Your task to perform on an android device: change alarm snooze length Image 0: 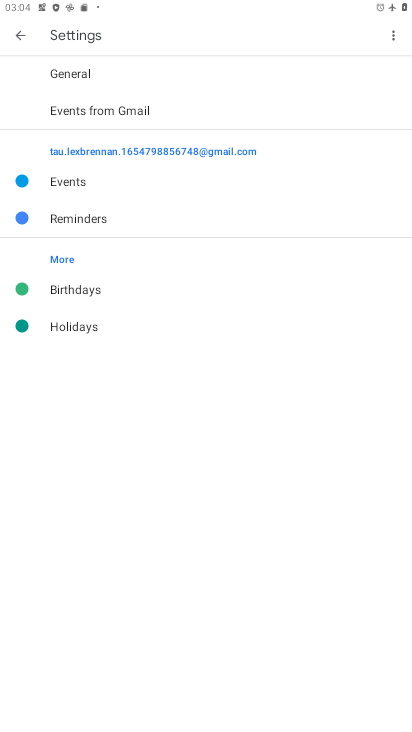
Step 0: press home button
Your task to perform on an android device: change alarm snooze length Image 1: 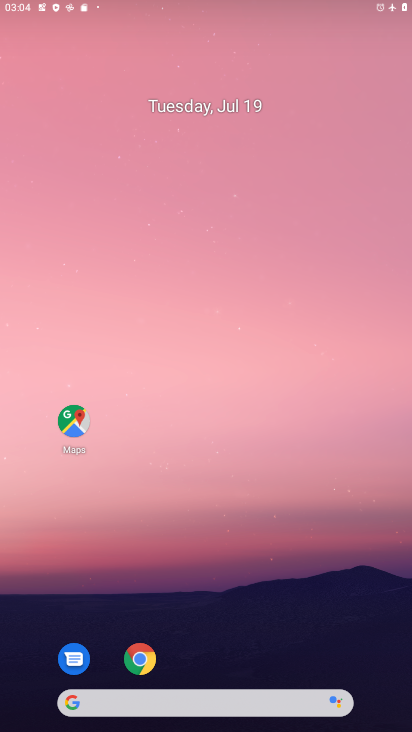
Step 1: drag from (235, 659) to (240, 232)
Your task to perform on an android device: change alarm snooze length Image 2: 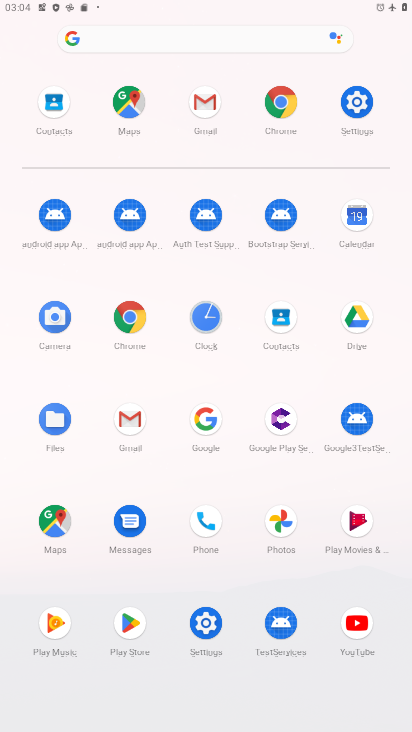
Step 2: click (191, 329)
Your task to perform on an android device: change alarm snooze length Image 3: 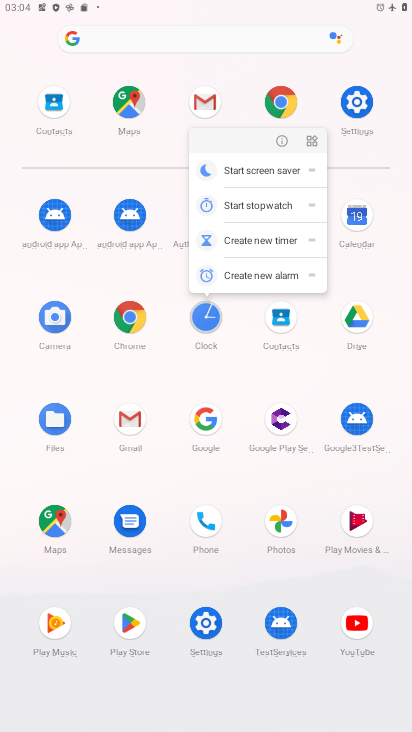
Step 3: click (190, 329)
Your task to perform on an android device: change alarm snooze length Image 4: 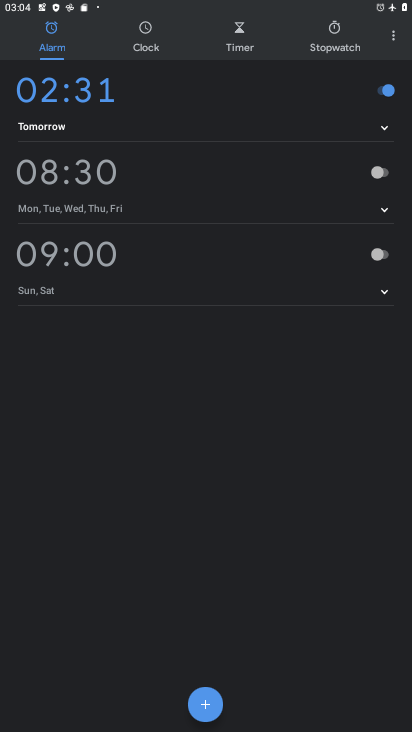
Step 4: task complete